Your task to perform on an android device: Open Yahoo.com Image 0: 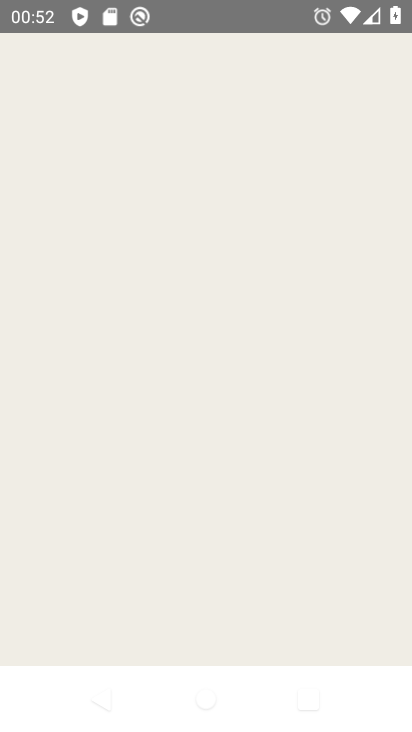
Step 0: click (152, 9)
Your task to perform on an android device: Open Yahoo.com Image 1: 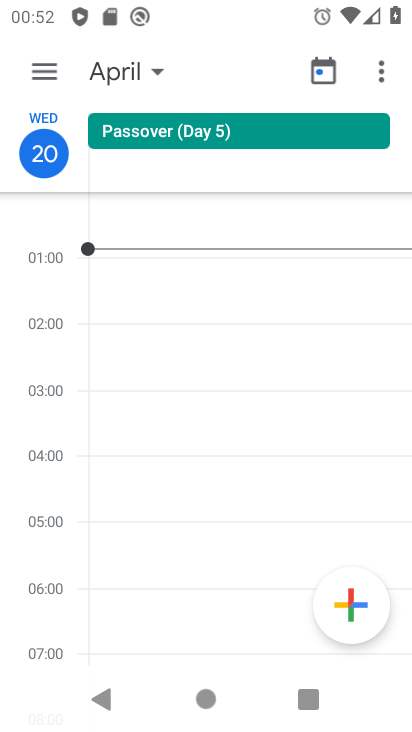
Step 1: press home button
Your task to perform on an android device: Open Yahoo.com Image 2: 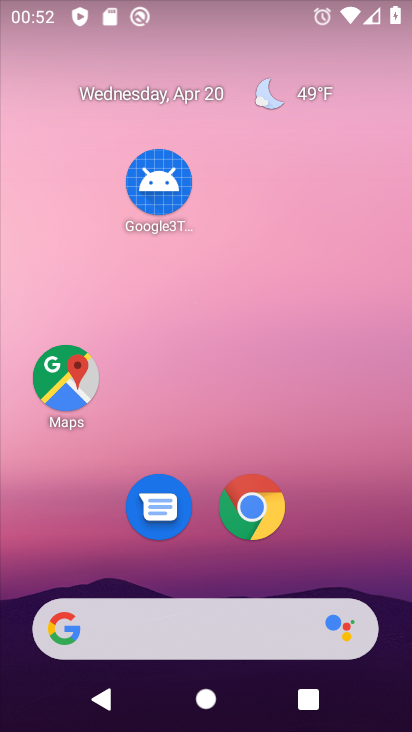
Step 2: click (253, 507)
Your task to perform on an android device: Open Yahoo.com Image 3: 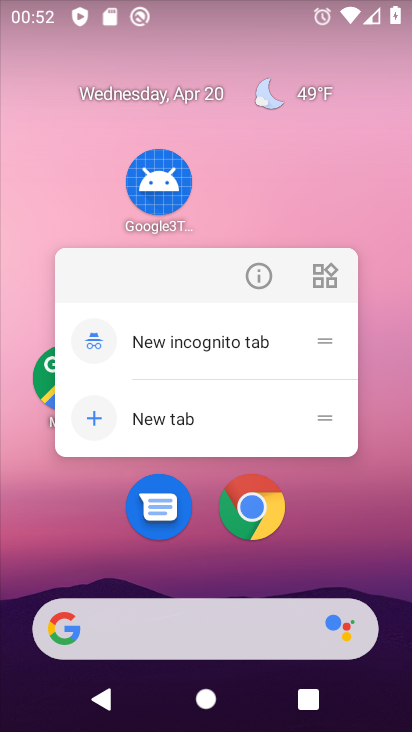
Step 3: click (258, 516)
Your task to perform on an android device: Open Yahoo.com Image 4: 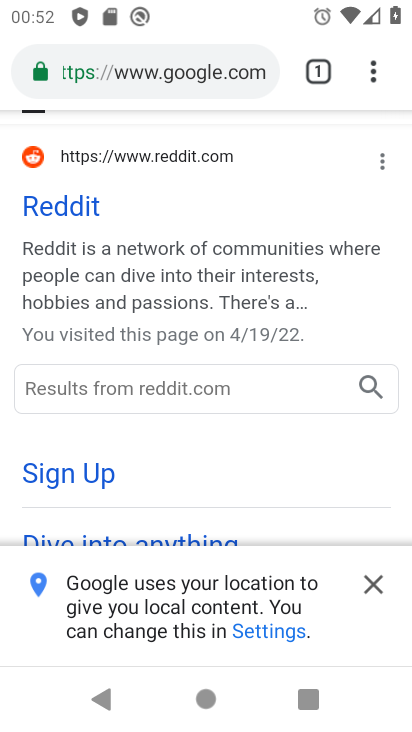
Step 4: click (366, 77)
Your task to perform on an android device: Open Yahoo.com Image 5: 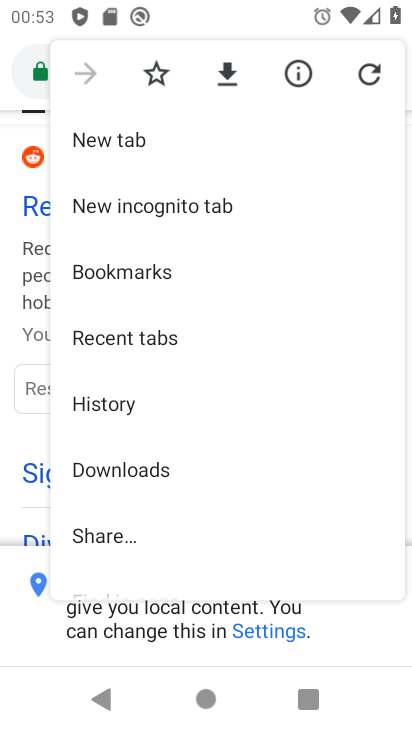
Step 5: click (134, 142)
Your task to perform on an android device: Open Yahoo.com Image 6: 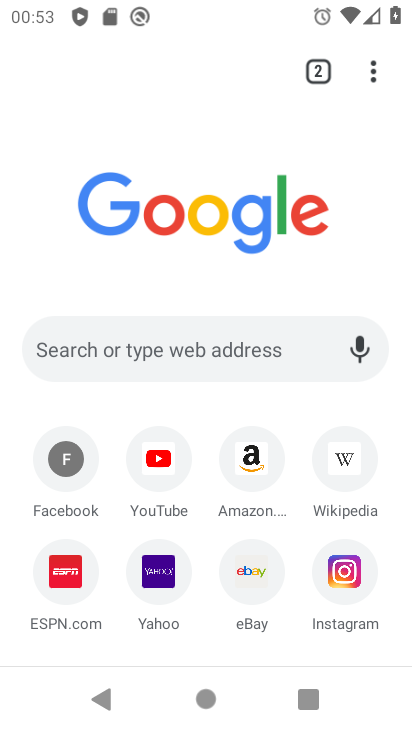
Step 6: click (161, 580)
Your task to perform on an android device: Open Yahoo.com Image 7: 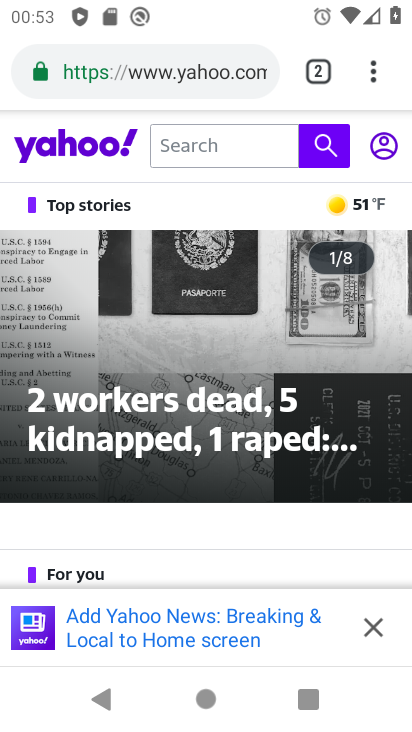
Step 7: task complete